Your task to perform on an android device: Open maps Image 0: 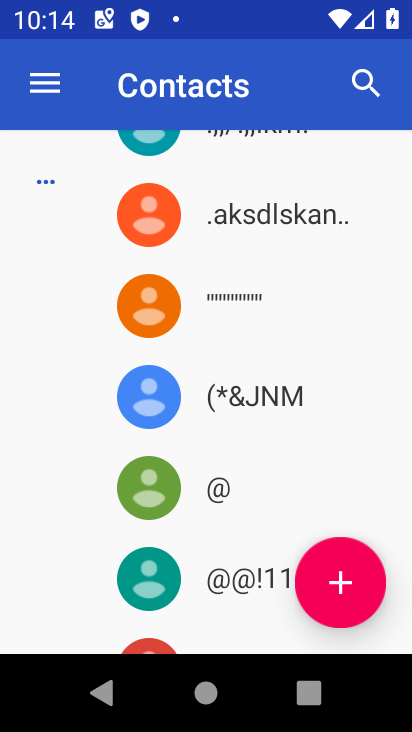
Step 0: press home button
Your task to perform on an android device: Open maps Image 1: 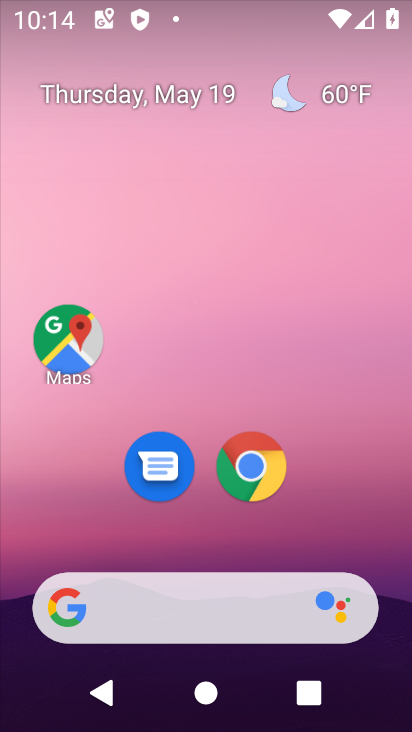
Step 1: click (64, 336)
Your task to perform on an android device: Open maps Image 2: 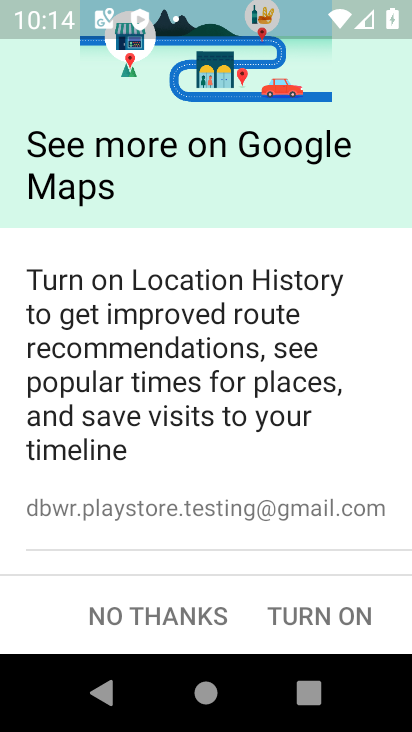
Step 2: press back button
Your task to perform on an android device: Open maps Image 3: 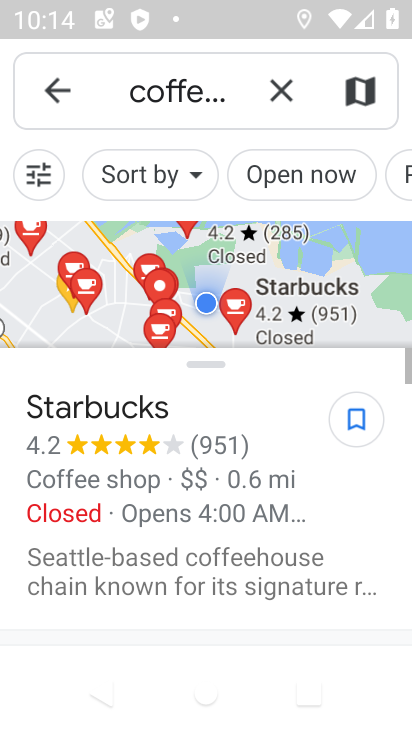
Step 3: click (280, 71)
Your task to perform on an android device: Open maps Image 4: 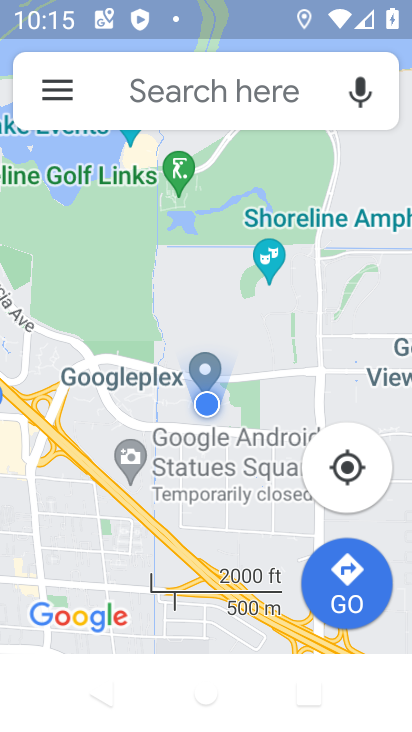
Step 4: task complete